Your task to perform on an android device: open wifi settings Image 0: 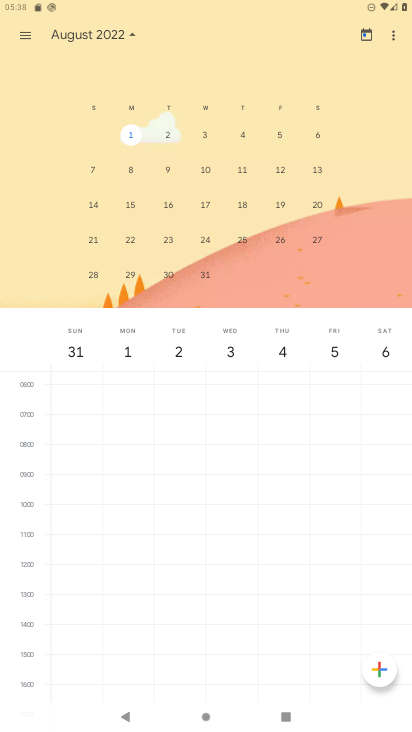
Step 0: press home button
Your task to perform on an android device: open wifi settings Image 1: 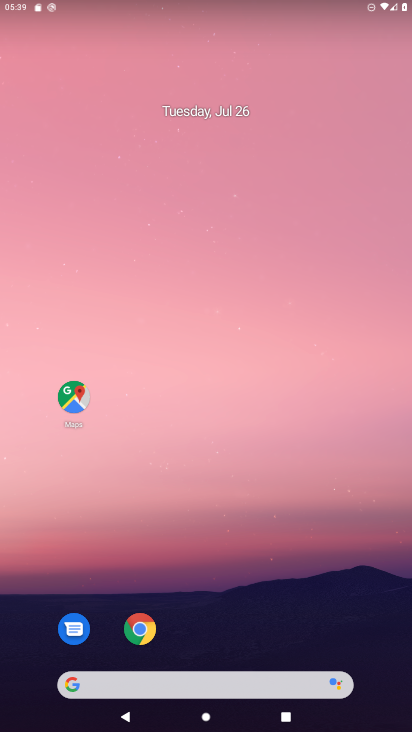
Step 1: drag from (185, 351) to (186, 44)
Your task to perform on an android device: open wifi settings Image 2: 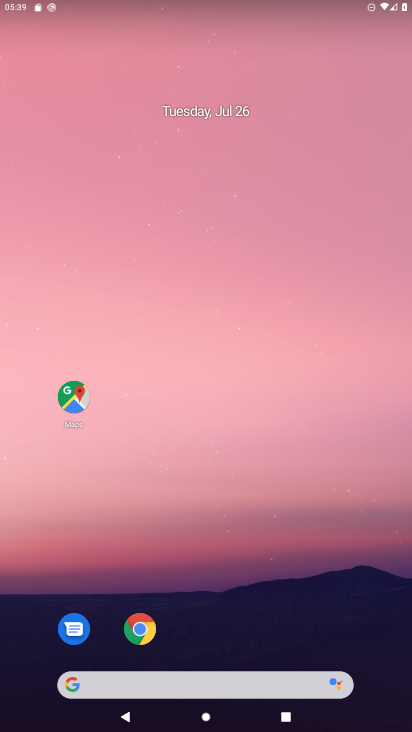
Step 2: drag from (197, 610) to (285, 151)
Your task to perform on an android device: open wifi settings Image 3: 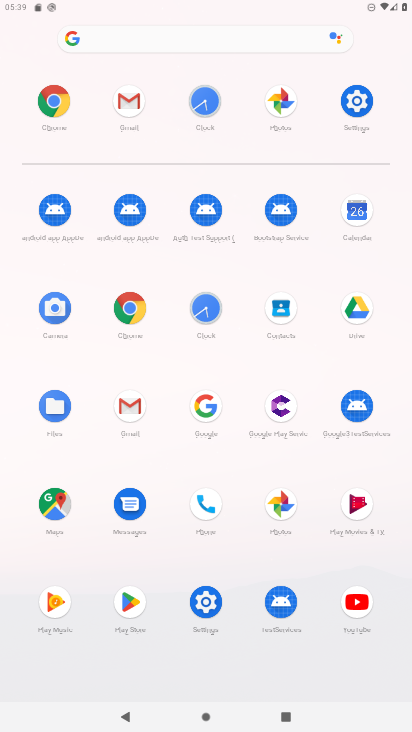
Step 3: click (357, 109)
Your task to perform on an android device: open wifi settings Image 4: 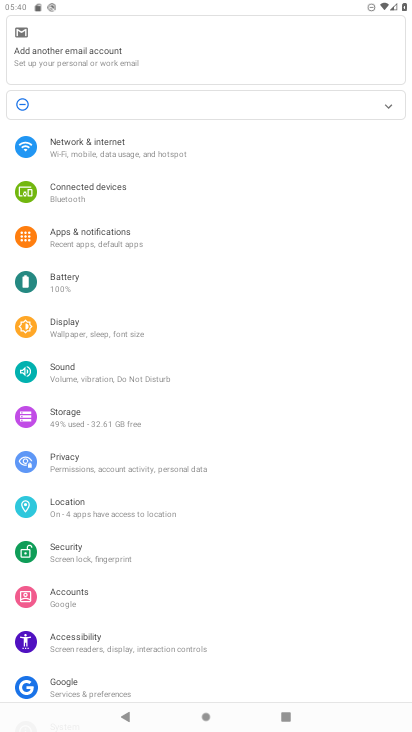
Step 4: click (129, 147)
Your task to perform on an android device: open wifi settings Image 5: 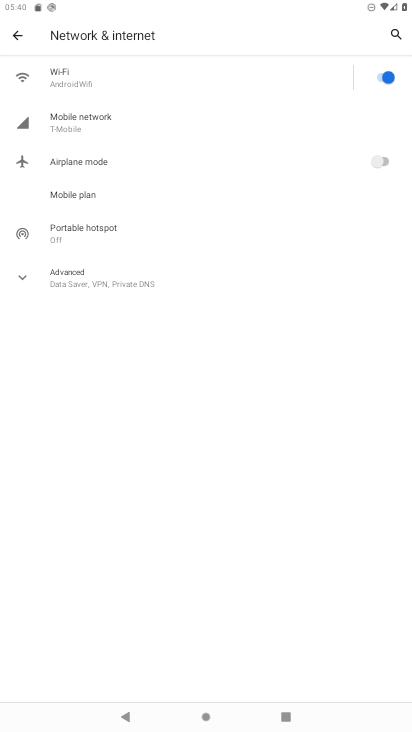
Step 5: click (109, 82)
Your task to perform on an android device: open wifi settings Image 6: 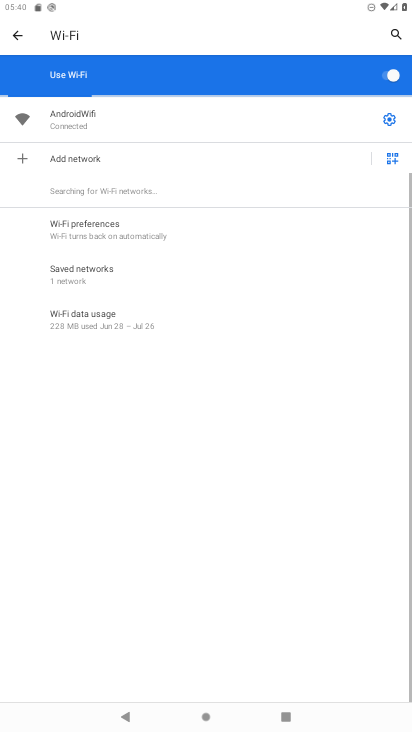
Step 6: task complete